Your task to perform on an android device: Go to calendar. Show me events next week Image 0: 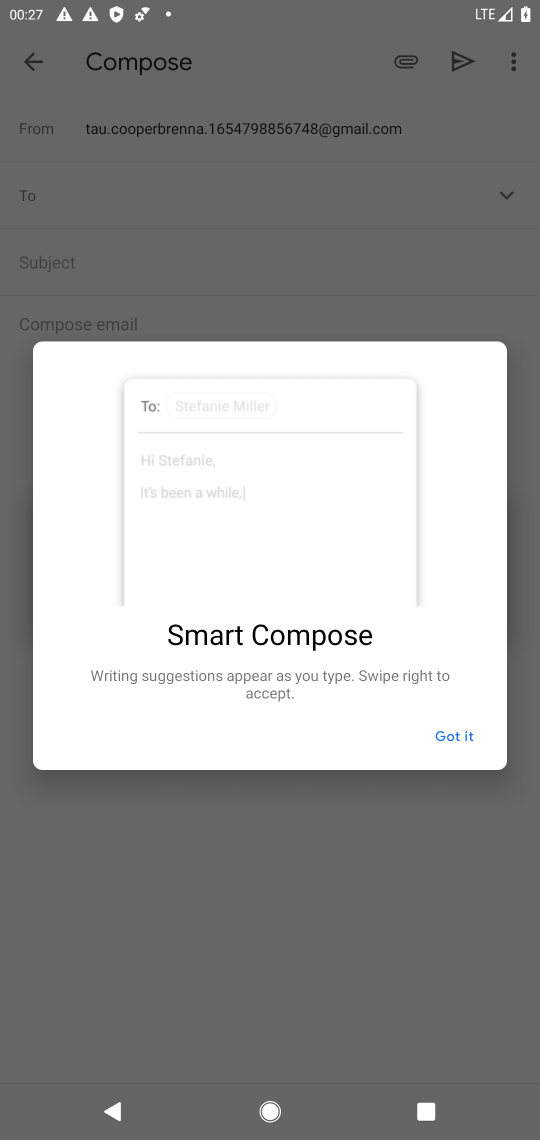
Step 0: press home button
Your task to perform on an android device: Go to calendar. Show me events next week Image 1: 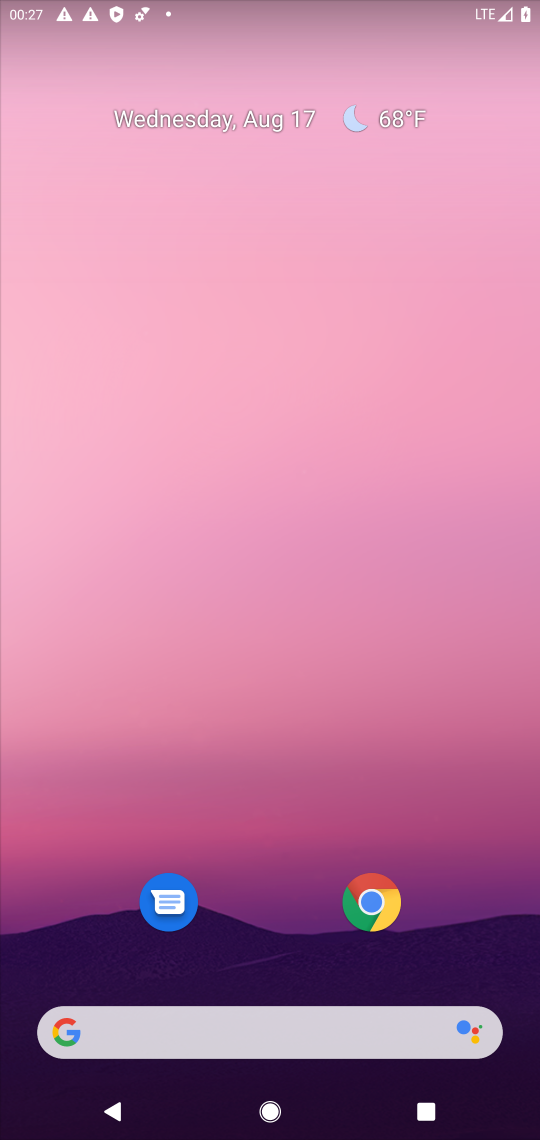
Step 1: drag from (230, 895) to (318, 46)
Your task to perform on an android device: Go to calendar. Show me events next week Image 2: 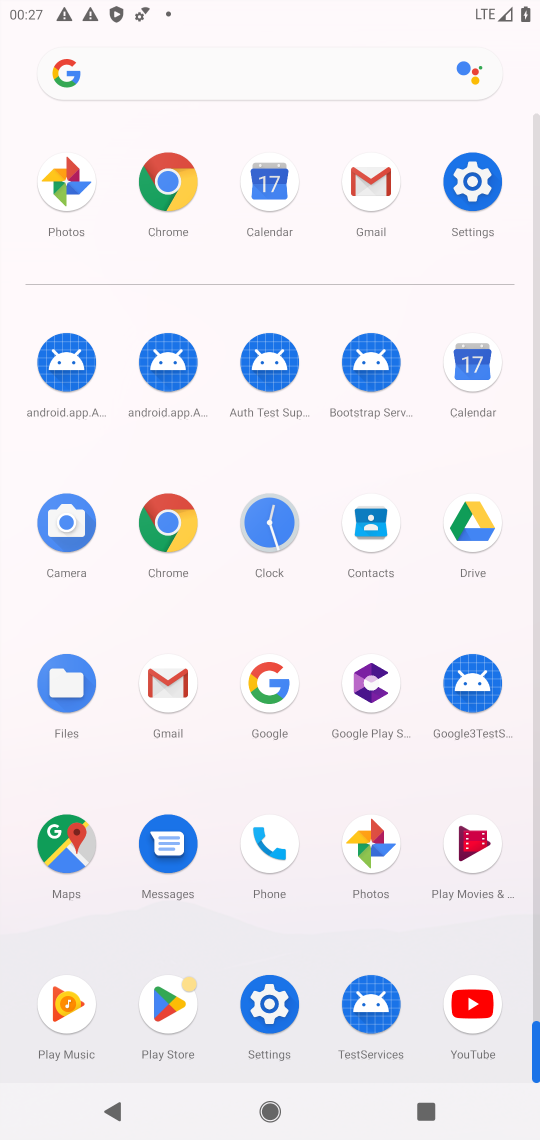
Step 2: click (477, 347)
Your task to perform on an android device: Go to calendar. Show me events next week Image 3: 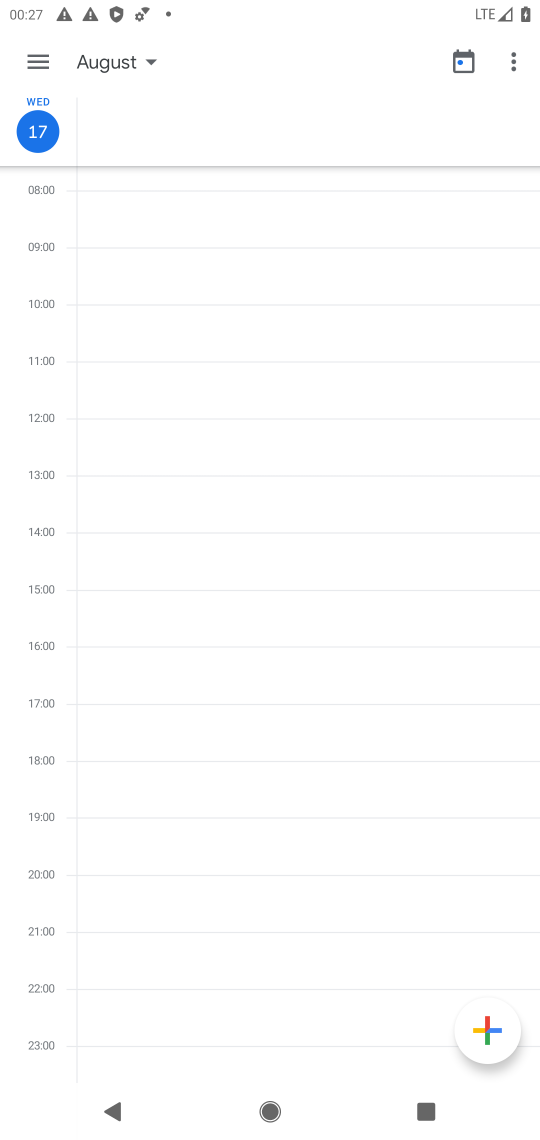
Step 3: click (37, 64)
Your task to perform on an android device: Go to calendar. Show me events next week Image 4: 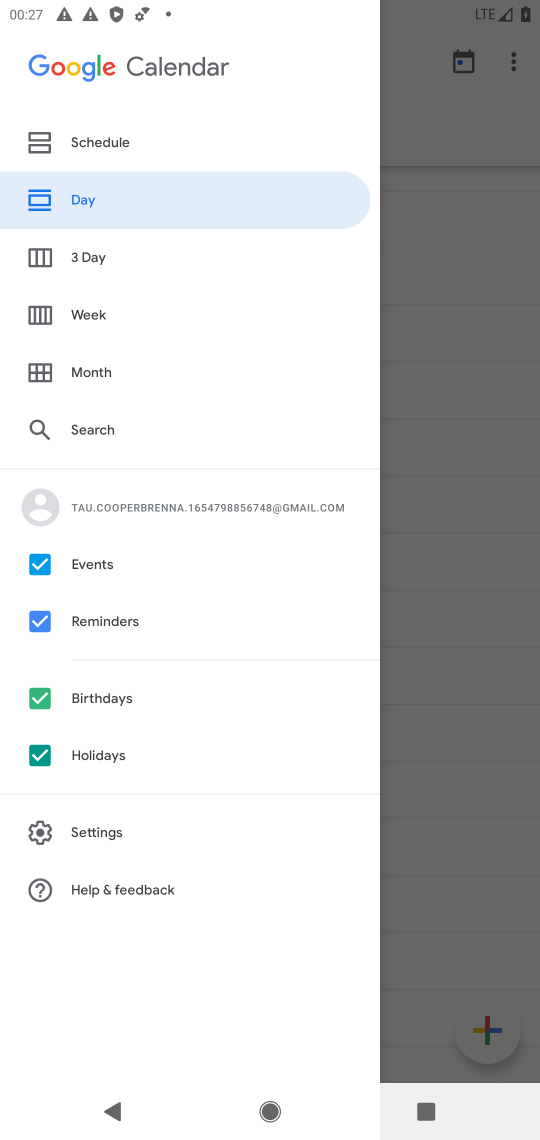
Step 4: click (93, 628)
Your task to perform on an android device: Go to calendar. Show me events next week Image 5: 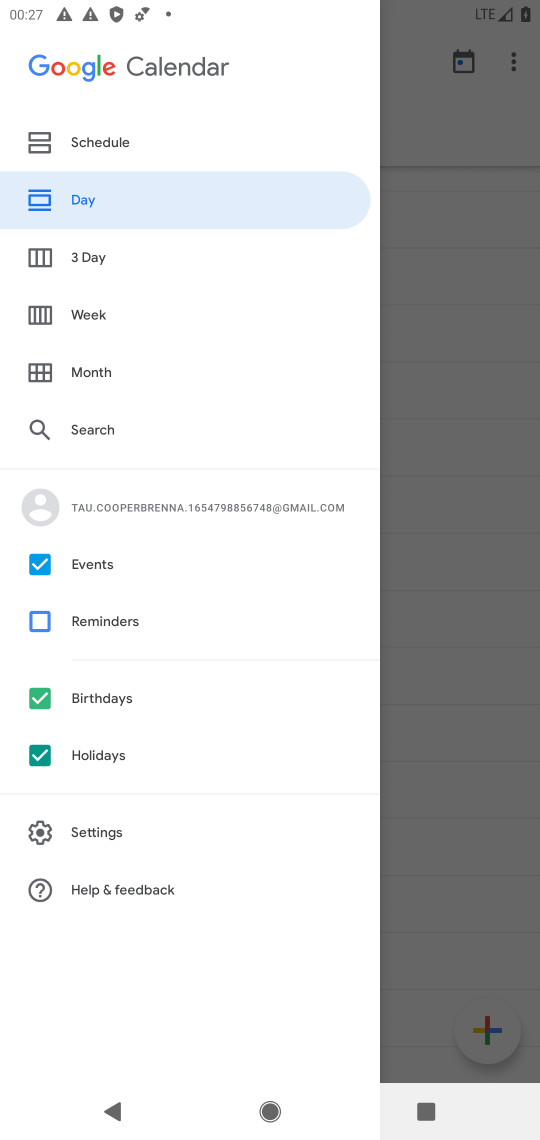
Step 5: click (107, 693)
Your task to perform on an android device: Go to calendar. Show me events next week Image 6: 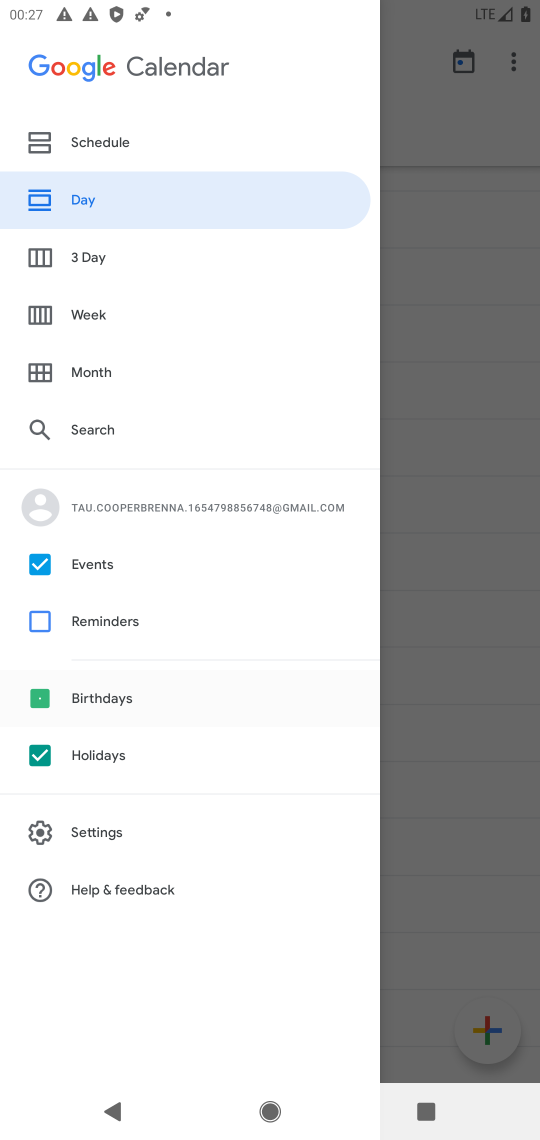
Step 6: click (91, 763)
Your task to perform on an android device: Go to calendar. Show me events next week Image 7: 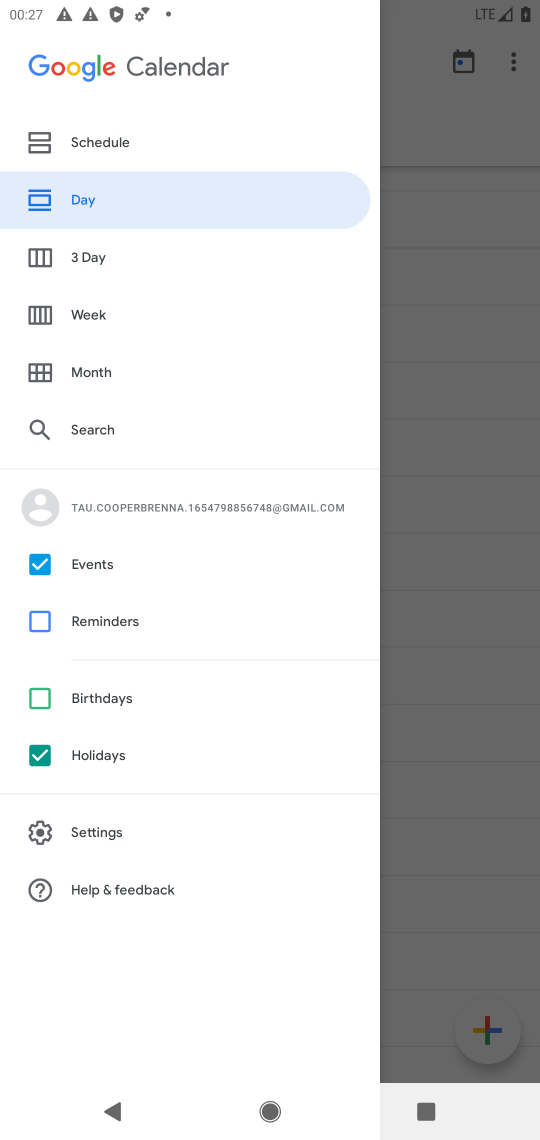
Step 7: click (112, 307)
Your task to perform on an android device: Go to calendar. Show me events next week Image 8: 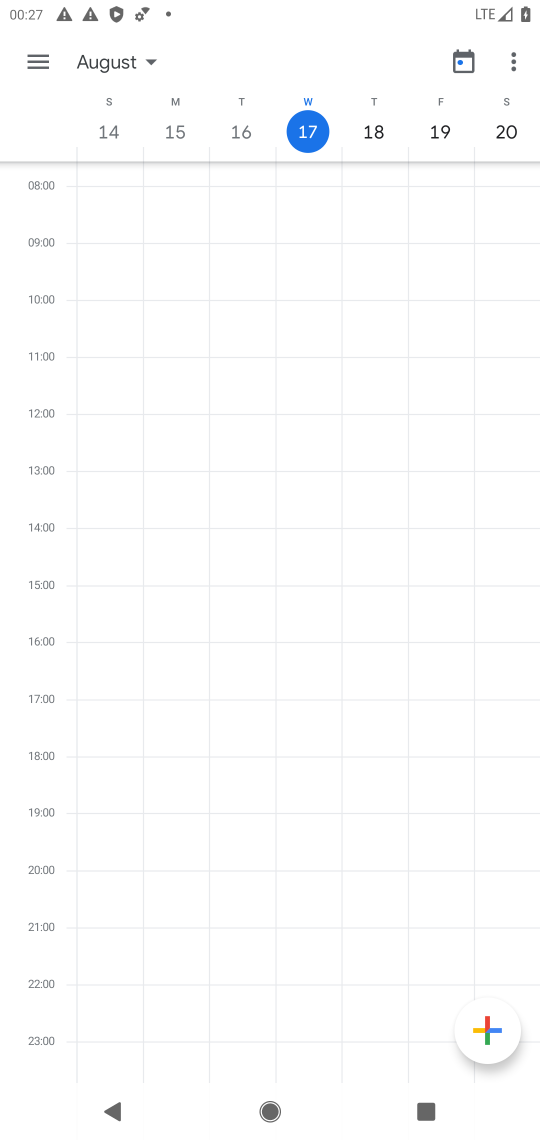
Step 8: task complete